Your task to perform on an android device: Open maps Image 0: 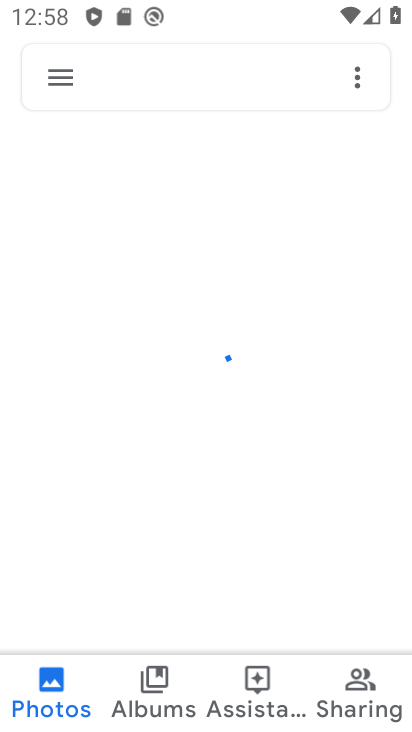
Step 0: press home button
Your task to perform on an android device: Open maps Image 1: 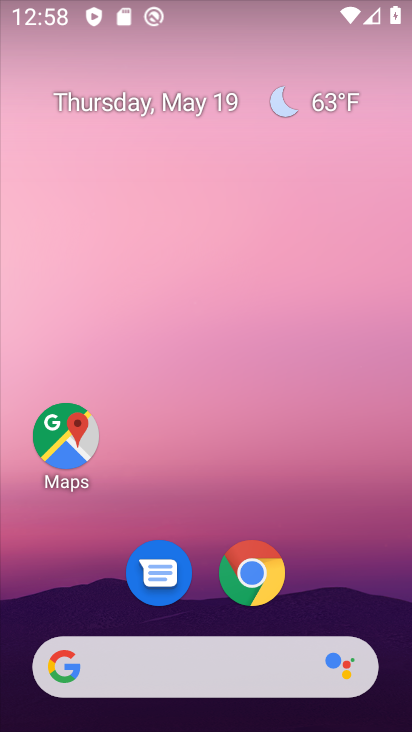
Step 1: click (54, 421)
Your task to perform on an android device: Open maps Image 2: 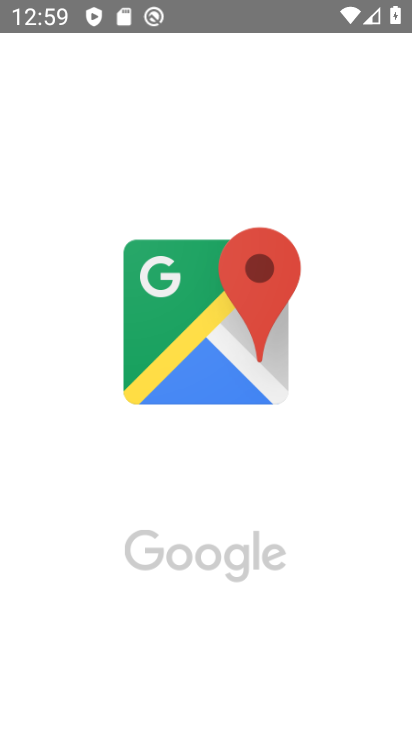
Step 2: task complete